Your task to perform on an android device: change the clock display to show seconds Image 0: 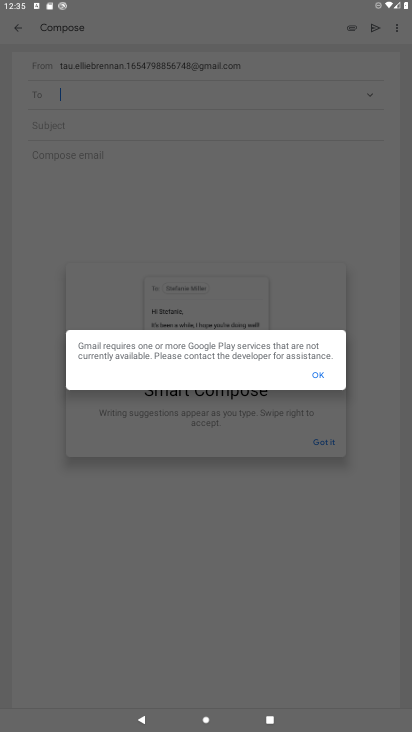
Step 0: press home button
Your task to perform on an android device: change the clock display to show seconds Image 1: 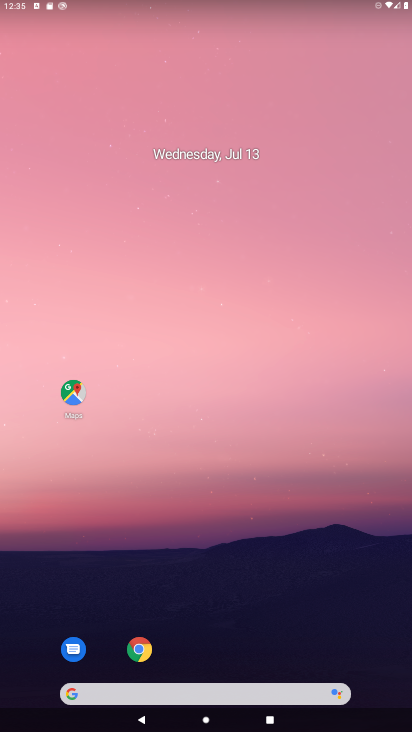
Step 1: drag from (367, 649) to (300, 170)
Your task to perform on an android device: change the clock display to show seconds Image 2: 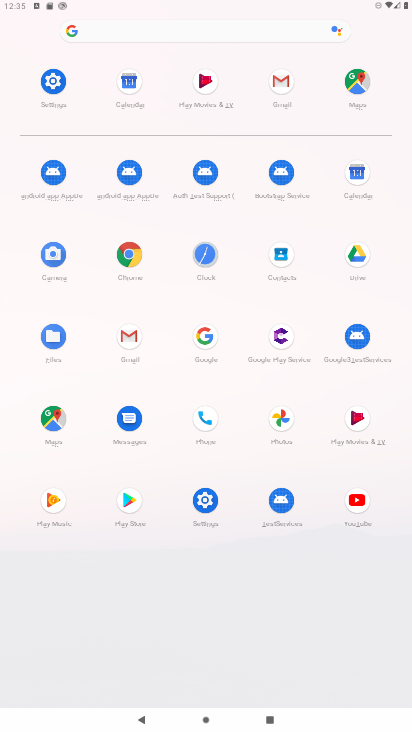
Step 2: click (204, 256)
Your task to perform on an android device: change the clock display to show seconds Image 3: 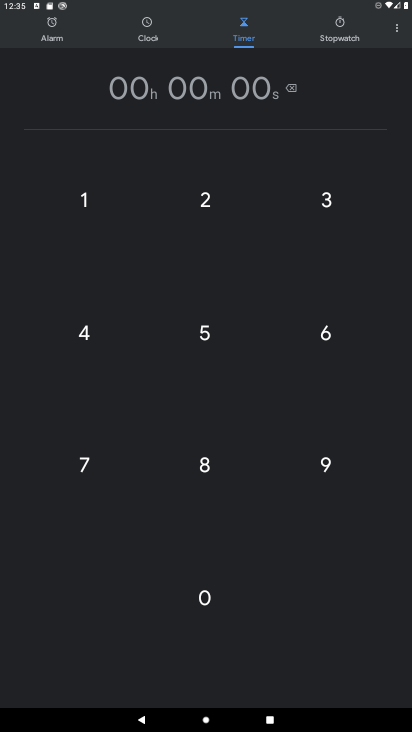
Step 3: click (398, 34)
Your task to perform on an android device: change the clock display to show seconds Image 4: 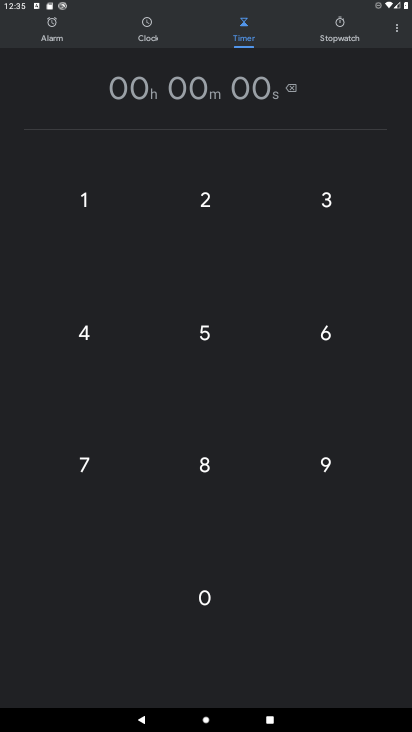
Step 4: click (394, 30)
Your task to perform on an android device: change the clock display to show seconds Image 5: 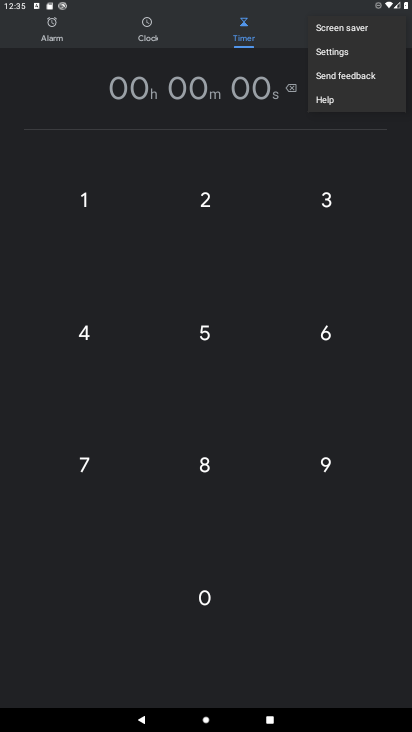
Step 5: click (333, 54)
Your task to perform on an android device: change the clock display to show seconds Image 6: 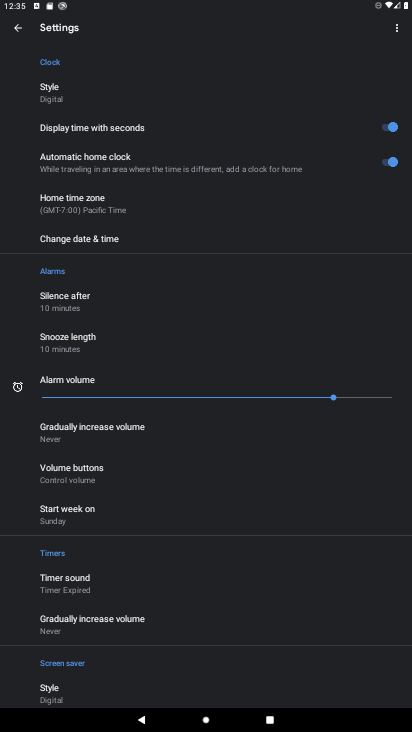
Step 6: task complete